Your task to perform on an android device: delete a single message in the gmail app Image 0: 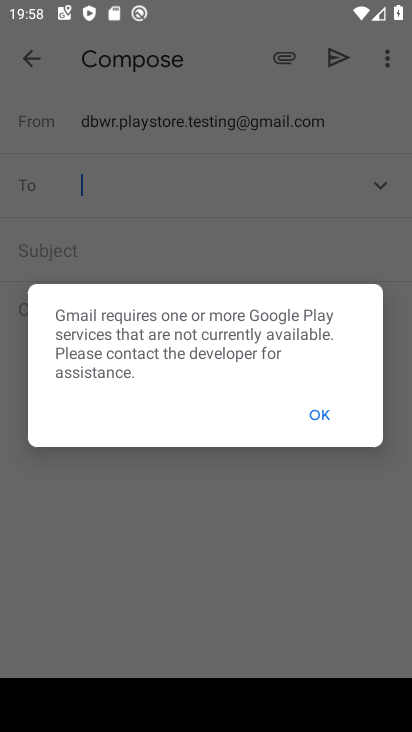
Step 0: press back button
Your task to perform on an android device: delete a single message in the gmail app Image 1: 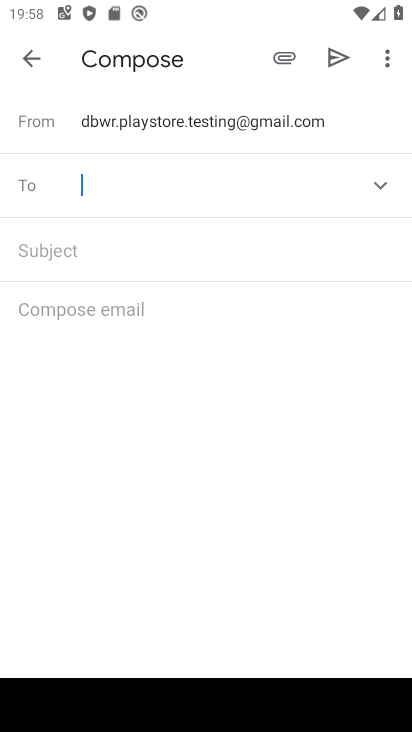
Step 1: press back button
Your task to perform on an android device: delete a single message in the gmail app Image 2: 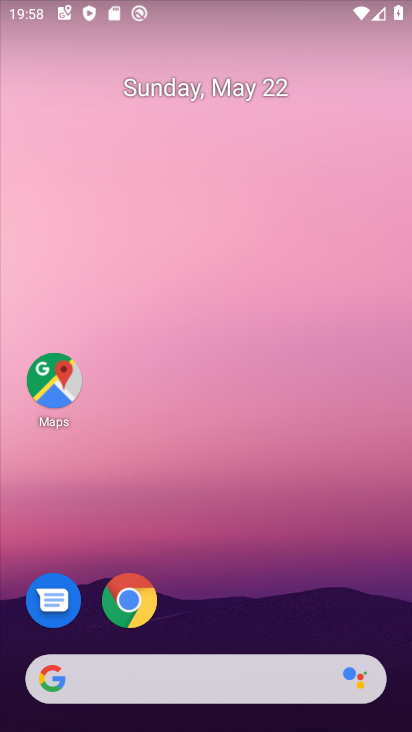
Step 2: drag from (241, 590) to (234, 36)
Your task to perform on an android device: delete a single message in the gmail app Image 3: 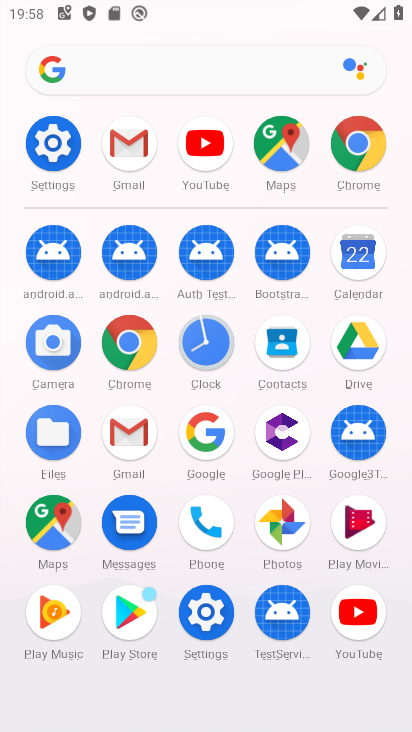
Step 3: click (129, 430)
Your task to perform on an android device: delete a single message in the gmail app Image 4: 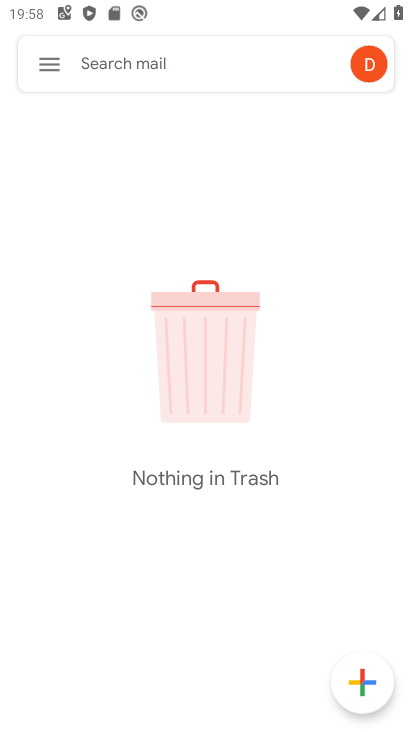
Step 4: click (44, 61)
Your task to perform on an android device: delete a single message in the gmail app Image 5: 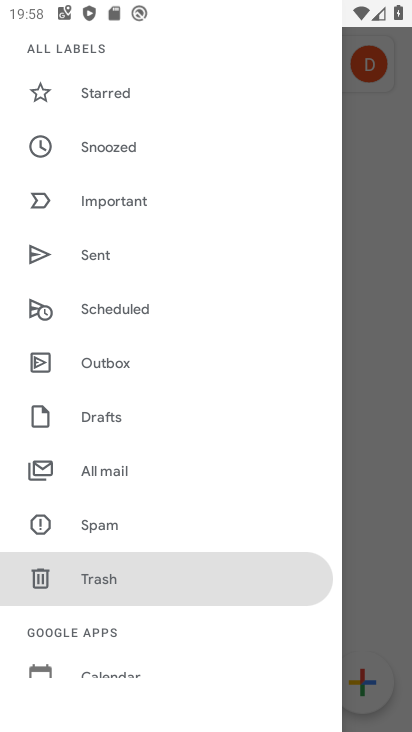
Step 5: drag from (176, 165) to (181, 601)
Your task to perform on an android device: delete a single message in the gmail app Image 6: 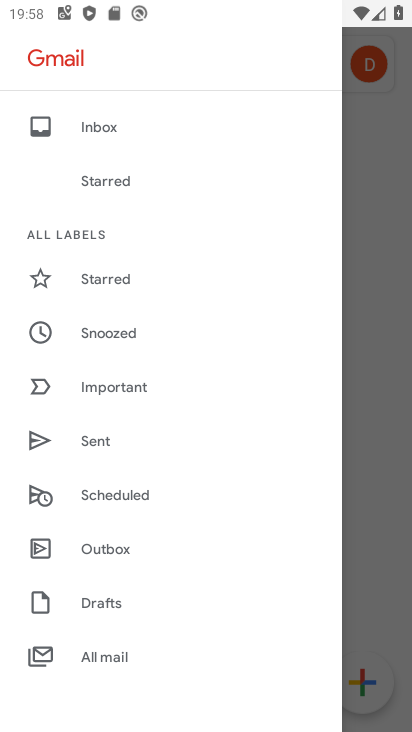
Step 6: click (100, 123)
Your task to perform on an android device: delete a single message in the gmail app Image 7: 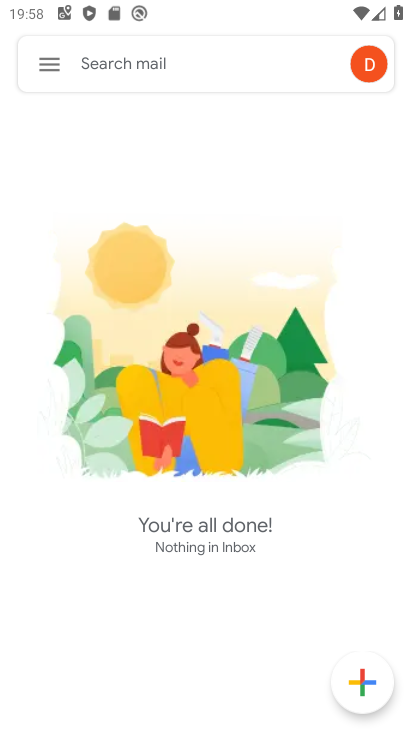
Step 7: click (43, 67)
Your task to perform on an android device: delete a single message in the gmail app Image 8: 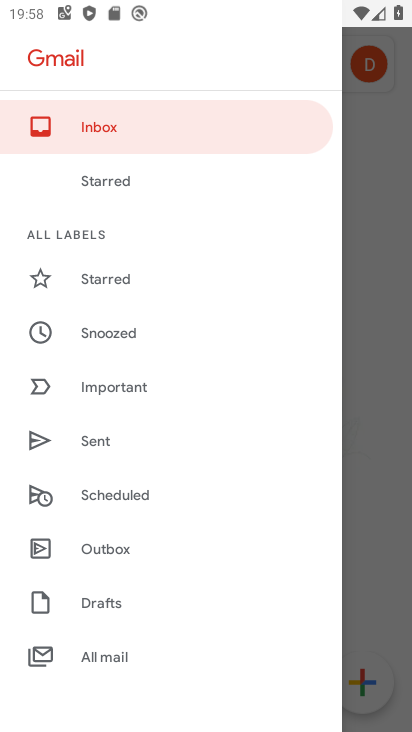
Step 8: drag from (160, 637) to (192, 262)
Your task to perform on an android device: delete a single message in the gmail app Image 9: 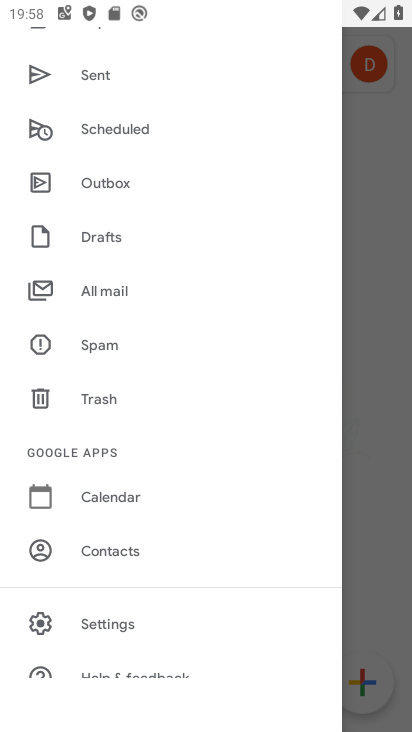
Step 9: click (110, 291)
Your task to perform on an android device: delete a single message in the gmail app Image 10: 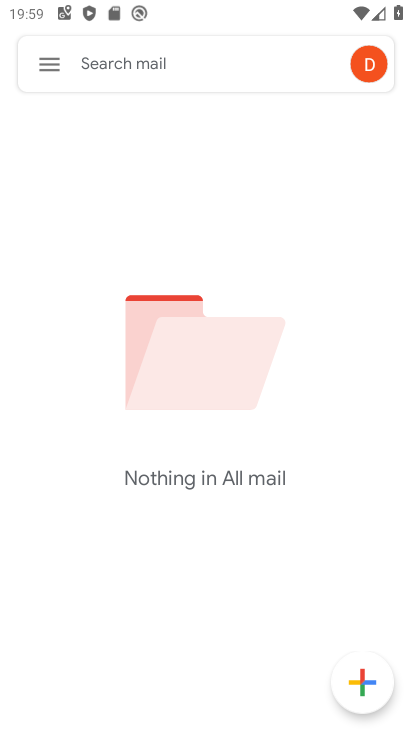
Step 10: task complete